Your task to perform on an android device: Search for alienware area 51 on costco.com, select the first entry, and add it to the cart. Image 0: 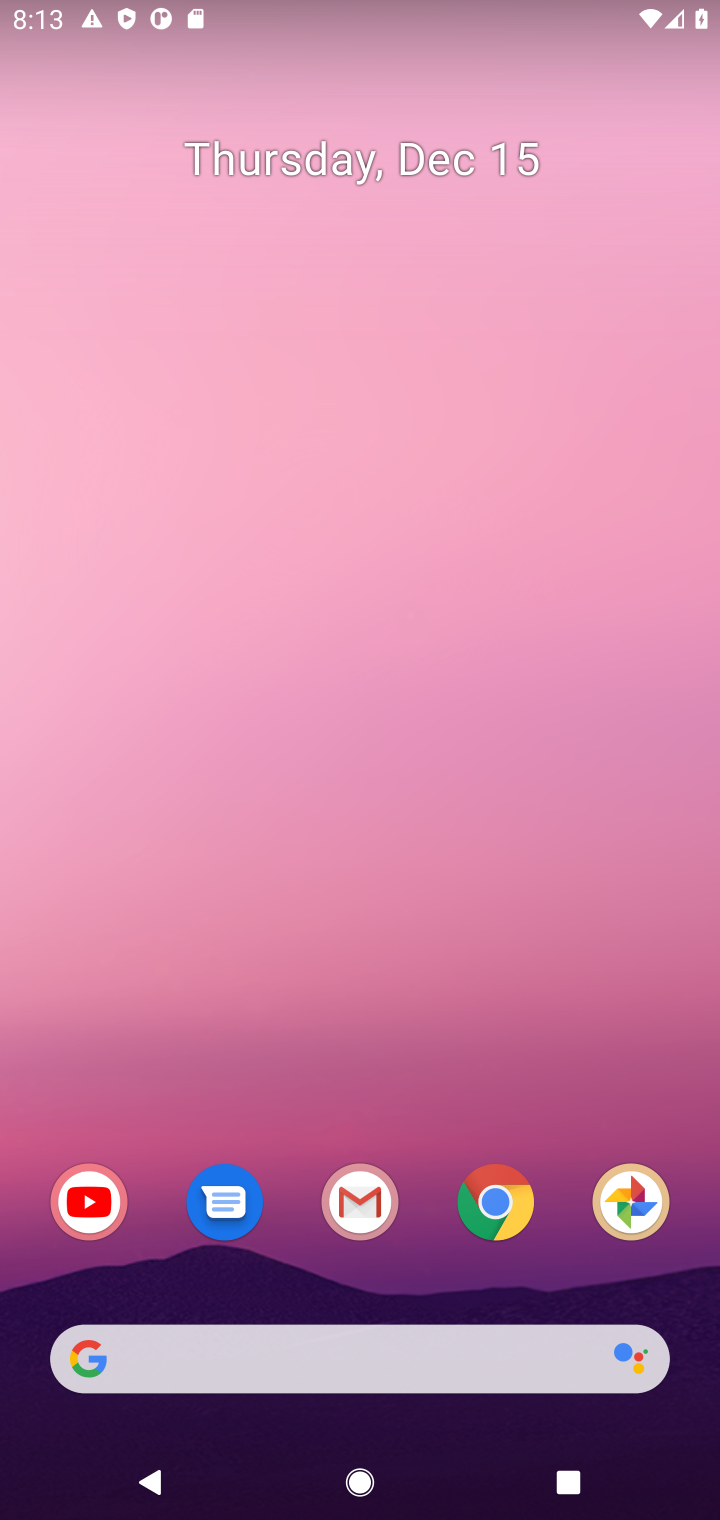
Step 0: click (503, 1228)
Your task to perform on an android device: Search for alienware area 51 on costco.com, select the first entry, and add it to the cart. Image 1: 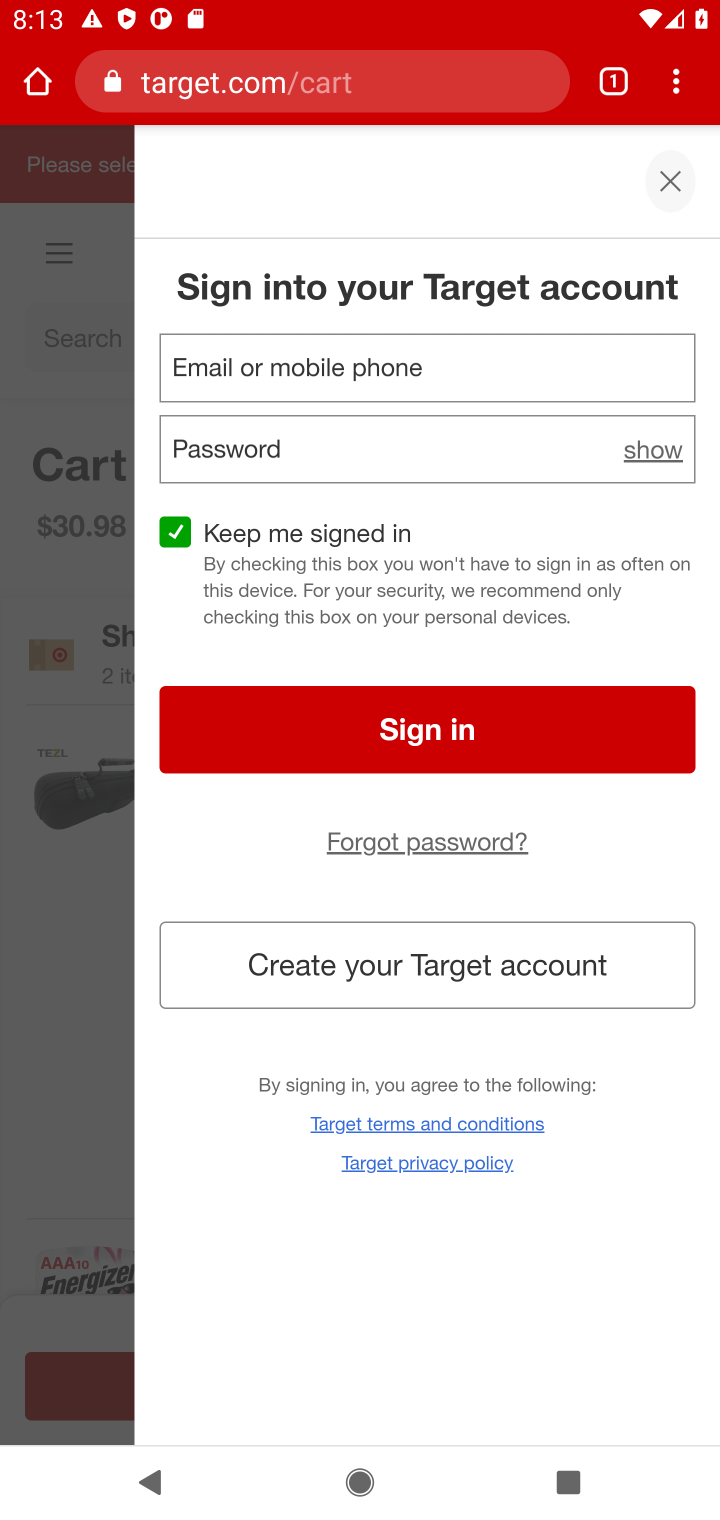
Step 1: click (268, 97)
Your task to perform on an android device: Search for alienware area 51 on costco.com, select the first entry, and add it to the cart. Image 2: 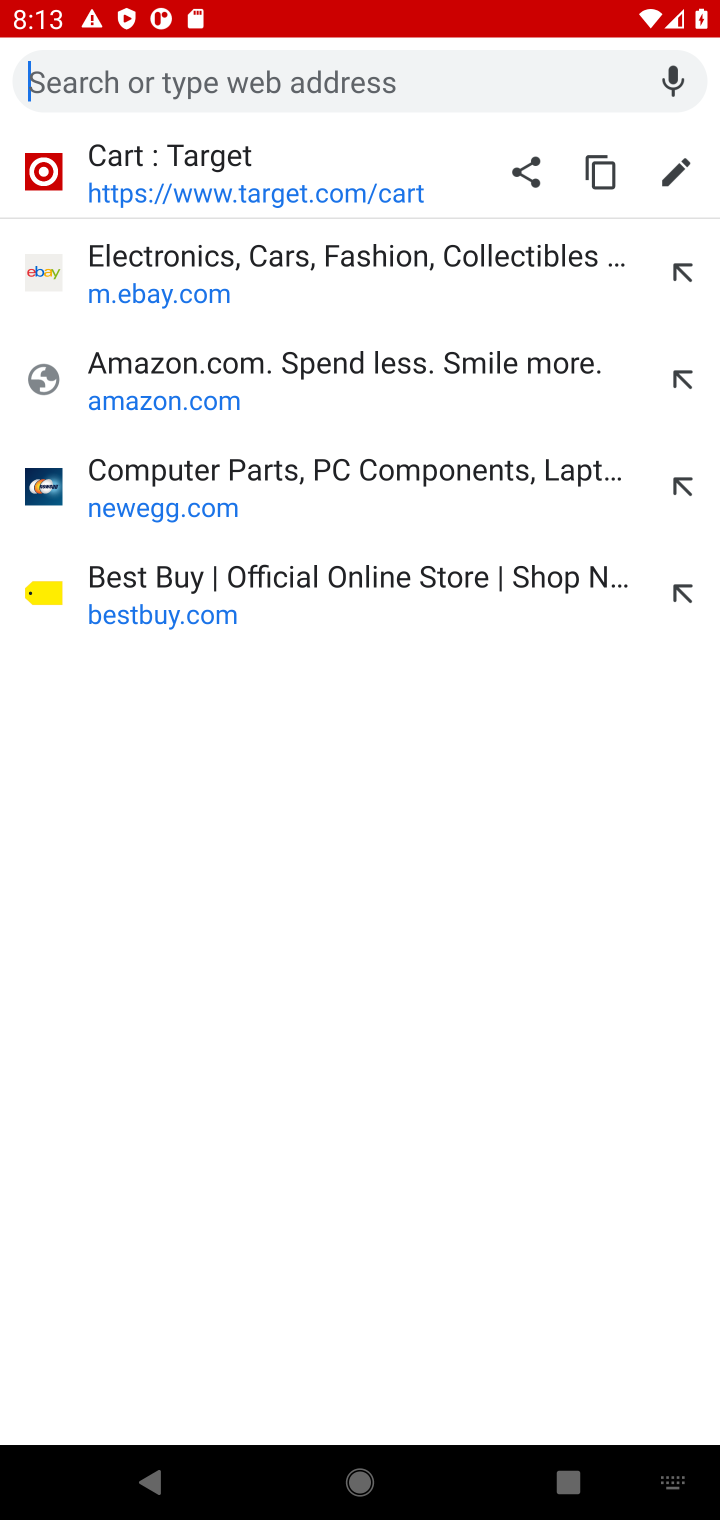
Step 2: type "costco.com"
Your task to perform on an android device: Search for alienware area 51 on costco.com, select the first entry, and add it to the cart. Image 3: 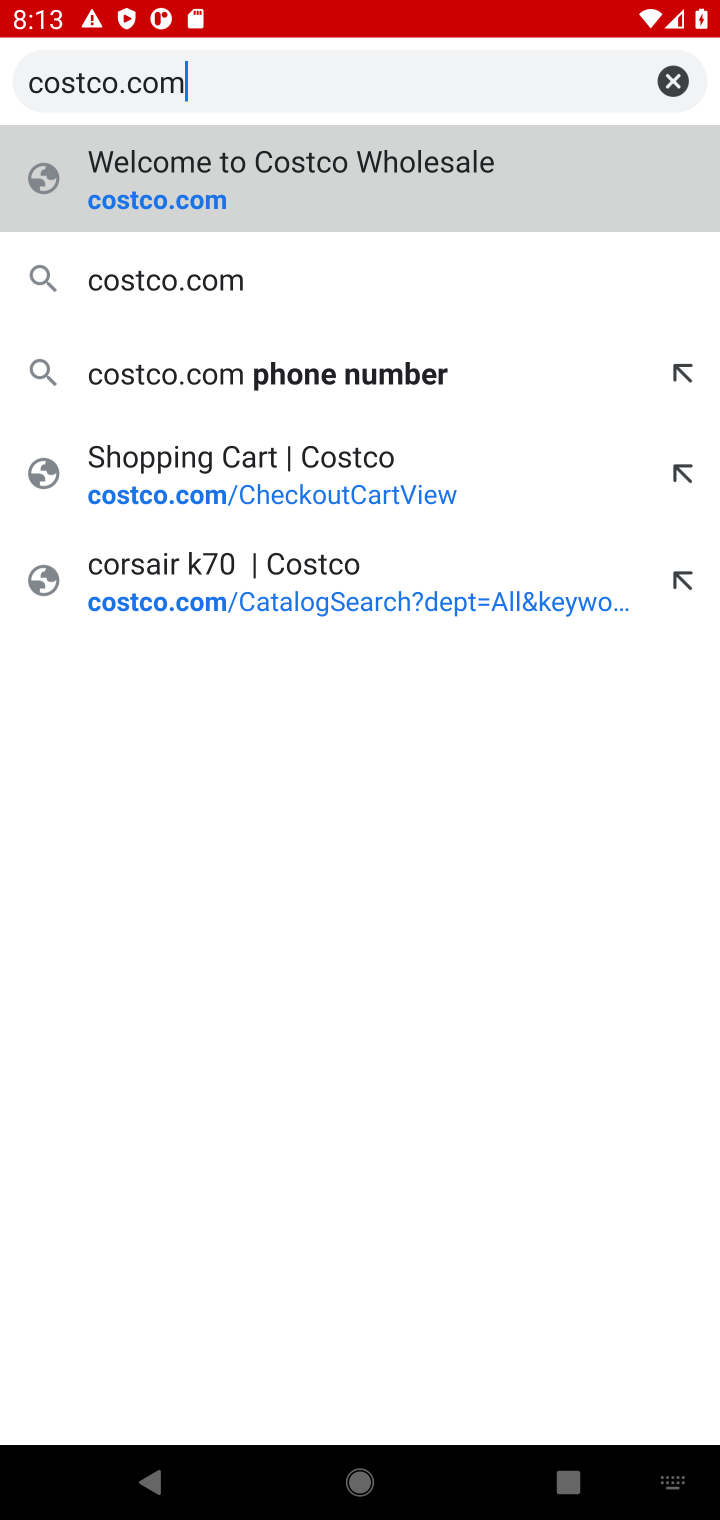
Step 3: click (170, 184)
Your task to perform on an android device: Search for alienware area 51 on costco.com, select the first entry, and add it to the cart. Image 4: 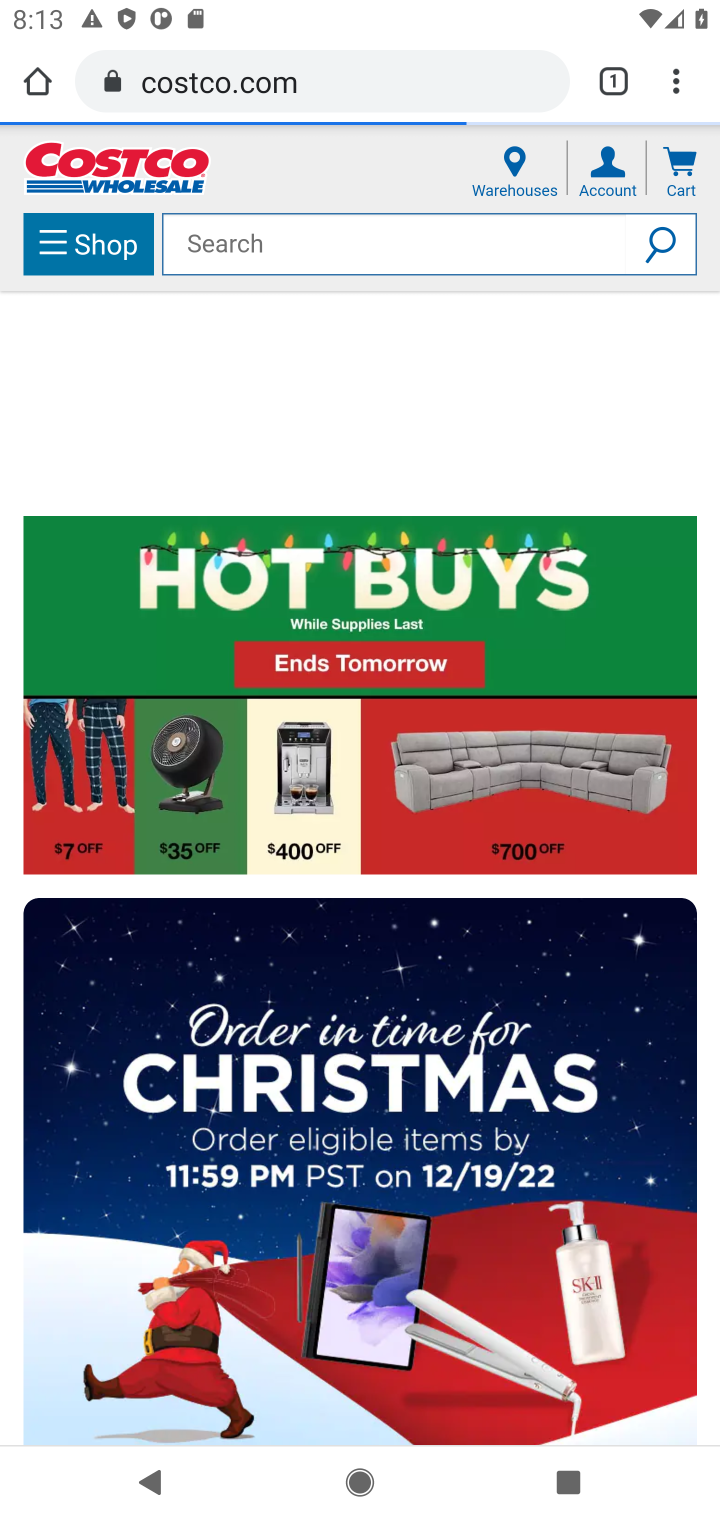
Step 4: click (223, 257)
Your task to perform on an android device: Search for alienware area 51 on costco.com, select the first entry, and add it to the cart. Image 5: 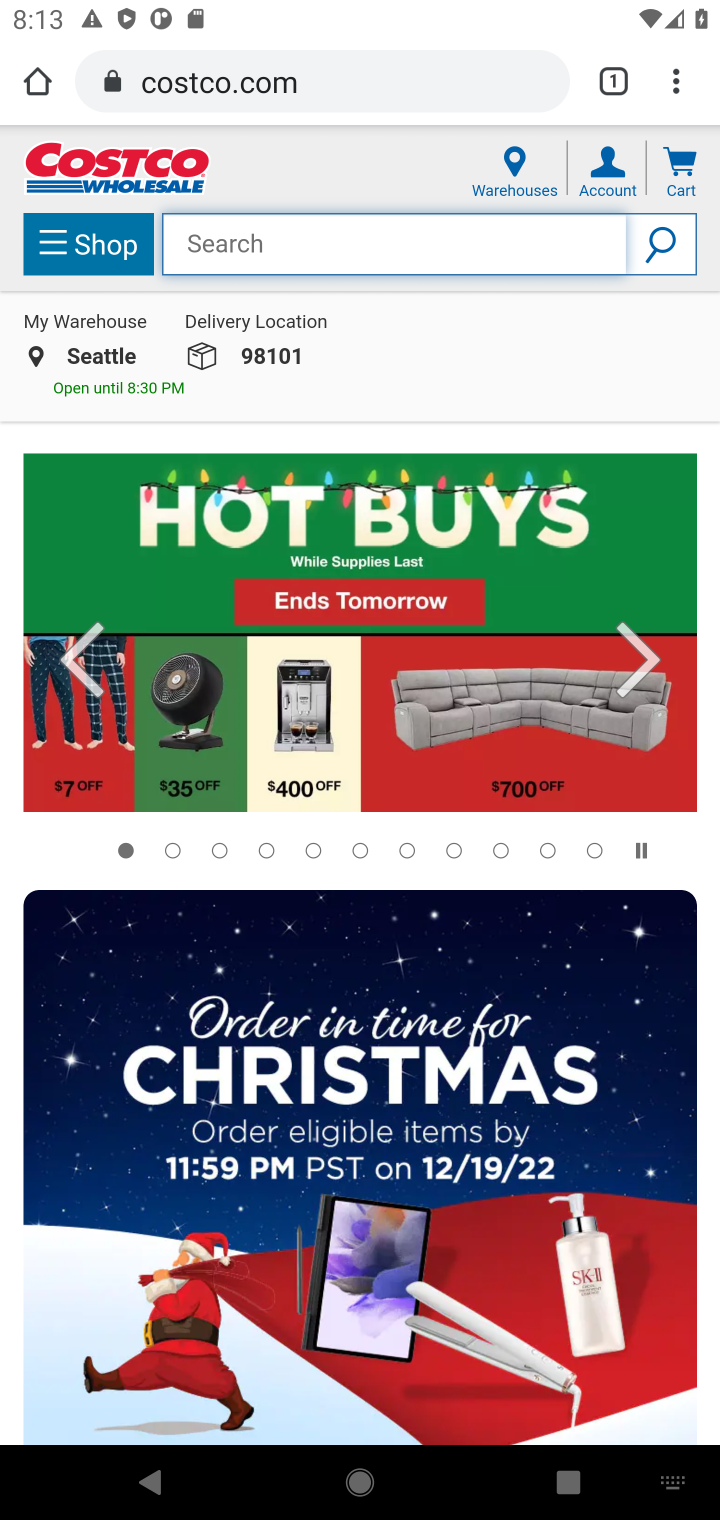
Step 5: type "alienware area 51"
Your task to perform on an android device: Search for alienware area 51 on costco.com, select the first entry, and add it to the cart. Image 6: 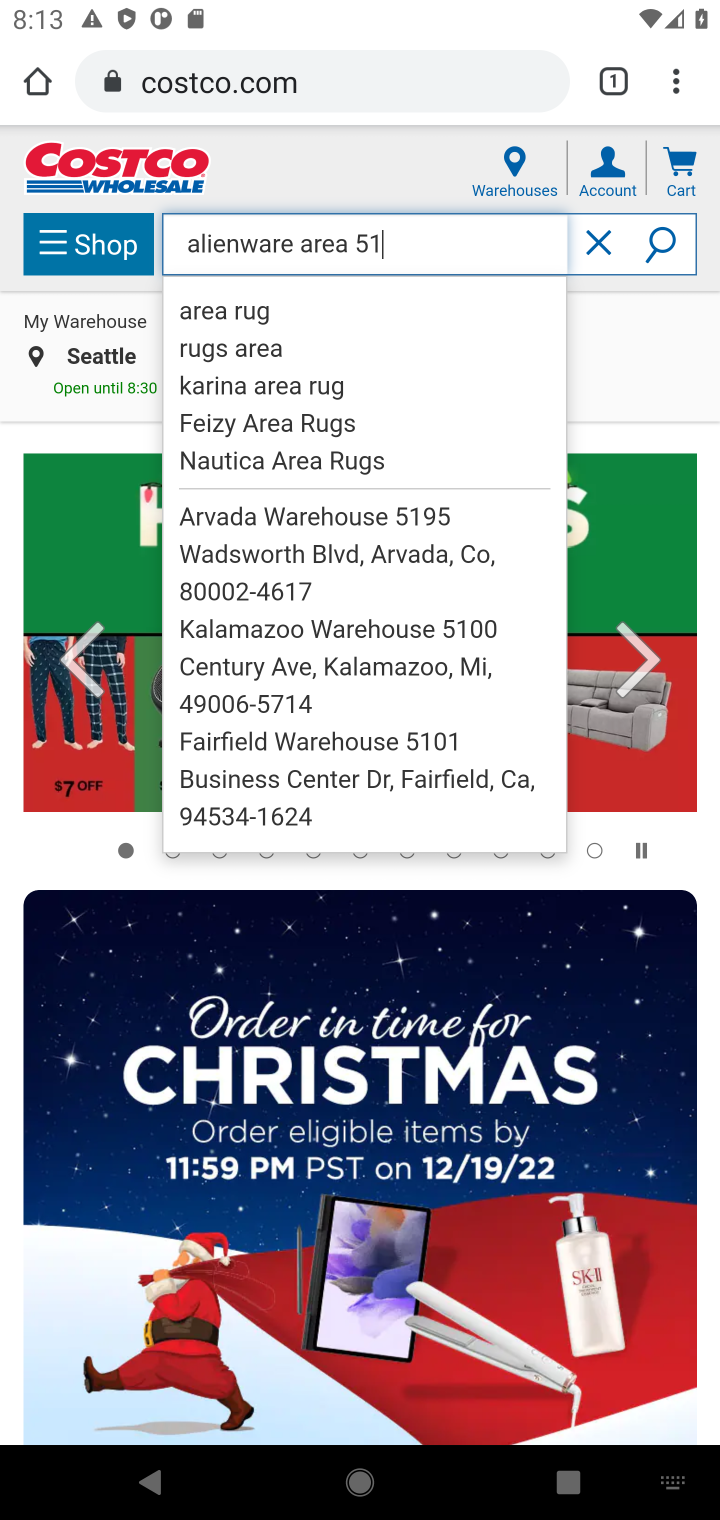
Step 6: click (664, 241)
Your task to perform on an android device: Search for alienware area 51 on costco.com, select the first entry, and add it to the cart. Image 7: 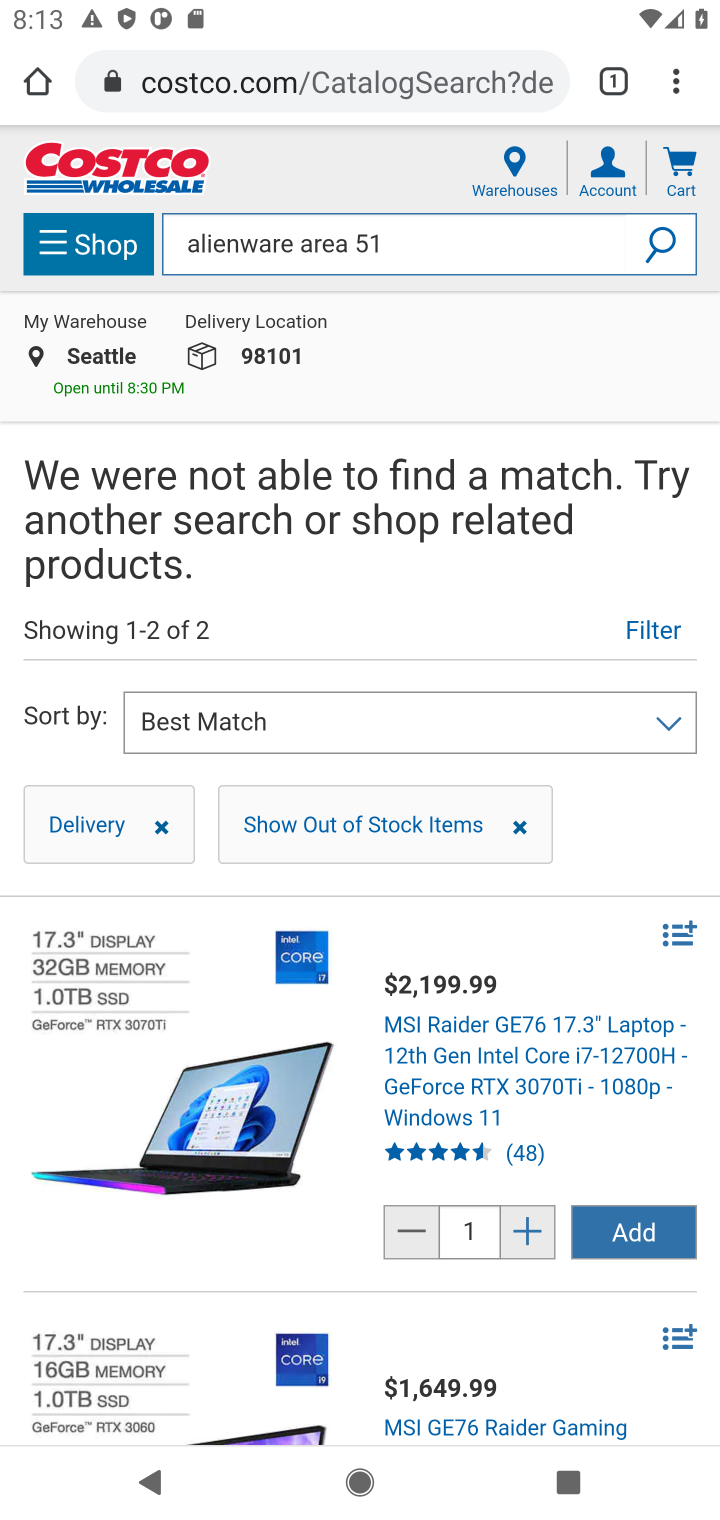
Step 7: task complete